Your task to perform on an android device: Is it going to rain today? Image 0: 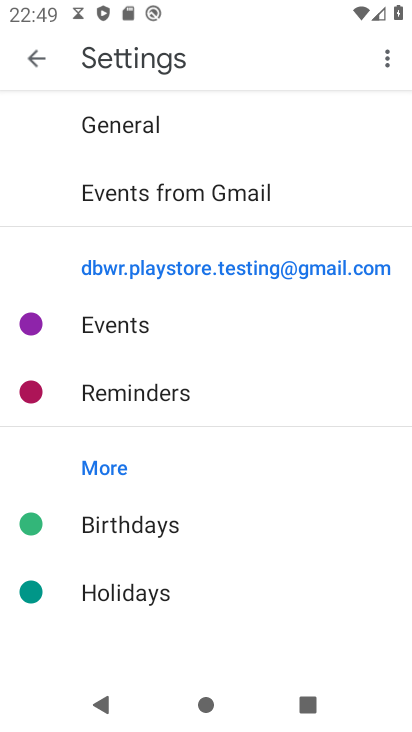
Step 0: press home button
Your task to perform on an android device: Is it going to rain today? Image 1: 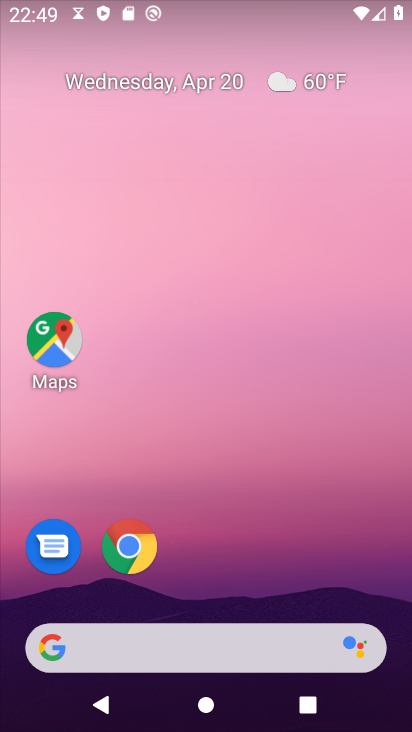
Step 1: click (306, 79)
Your task to perform on an android device: Is it going to rain today? Image 2: 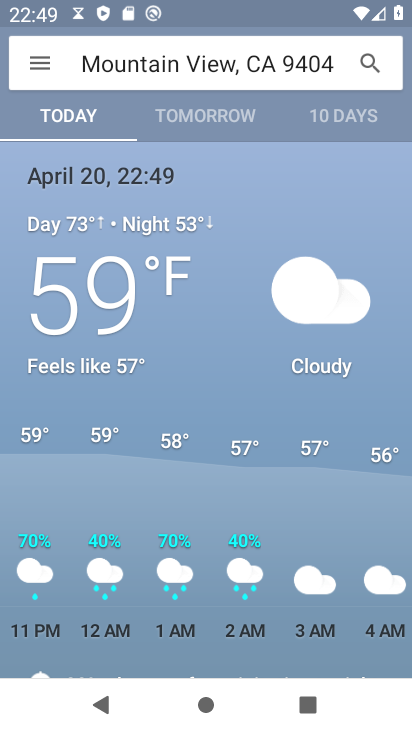
Step 2: task complete